Your task to perform on an android device: Open calendar and show me the second week of next month Image 0: 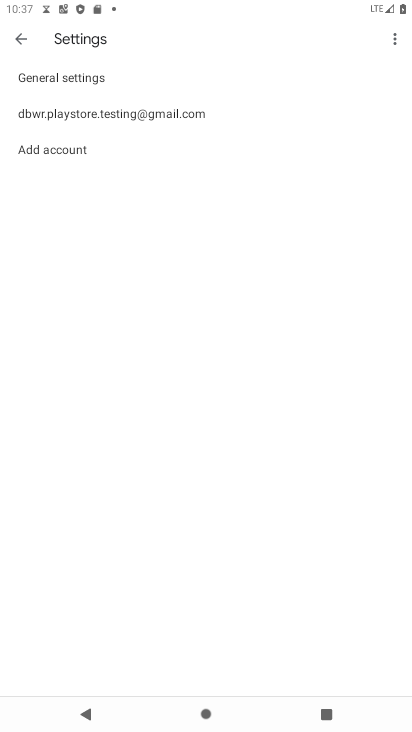
Step 0: press home button
Your task to perform on an android device: Open calendar and show me the second week of next month Image 1: 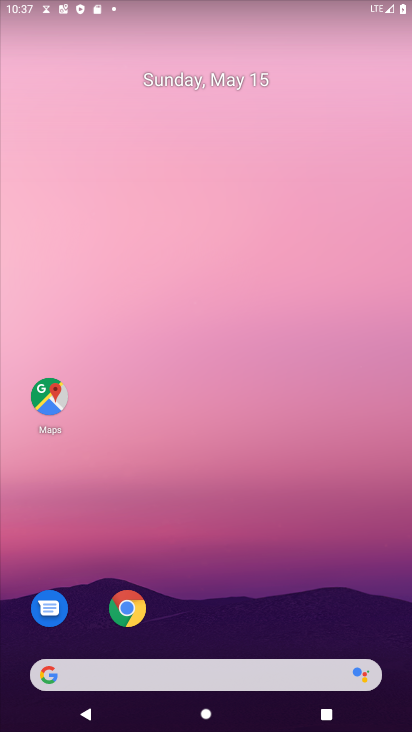
Step 1: drag from (301, 573) to (218, 78)
Your task to perform on an android device: Open calendar and show me the second week of next month Image 2: 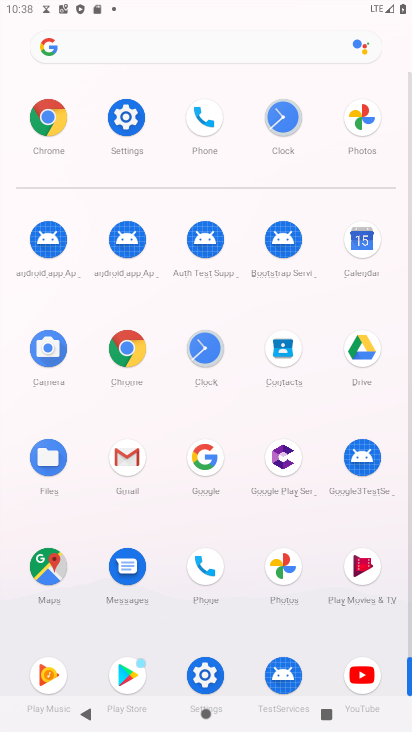
Step 2: click (357, 240)
Your task to perform on an android device: Open calendar and show me the second week of next month Image 3: 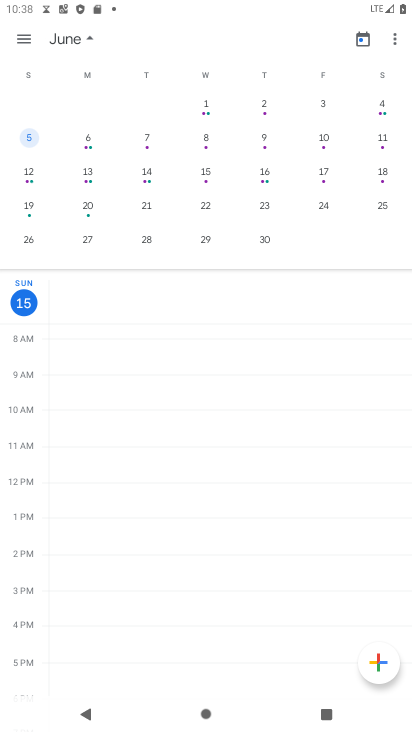
Step 3: drag from (345, 240) to (15, 256)
Your task to perform on an android device: Open calendar and show me the second week of next month Image 4: 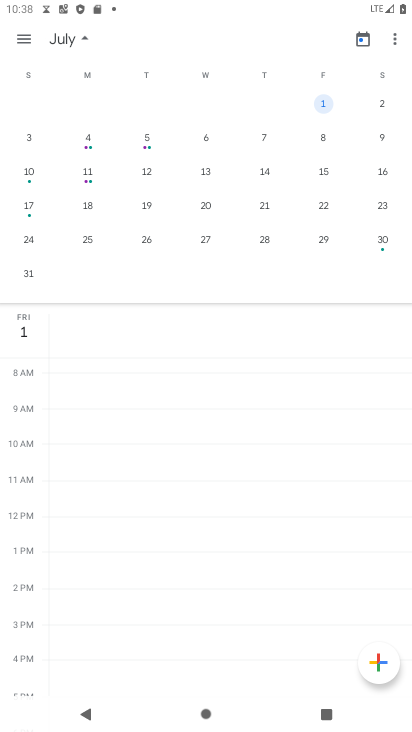
Step 4: click (265, 174)
Your task to perform on an android device: Open calendar and show me the second week of next month Image 5: 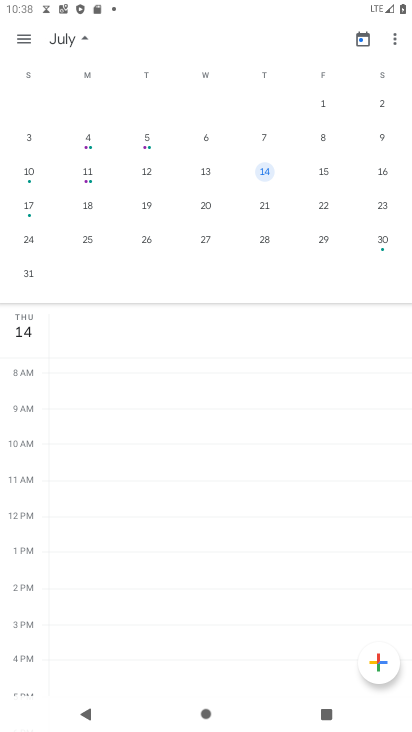
Step 5: task complete